Your task to perform on an android device: install app "Nova Launcher" Image 0: 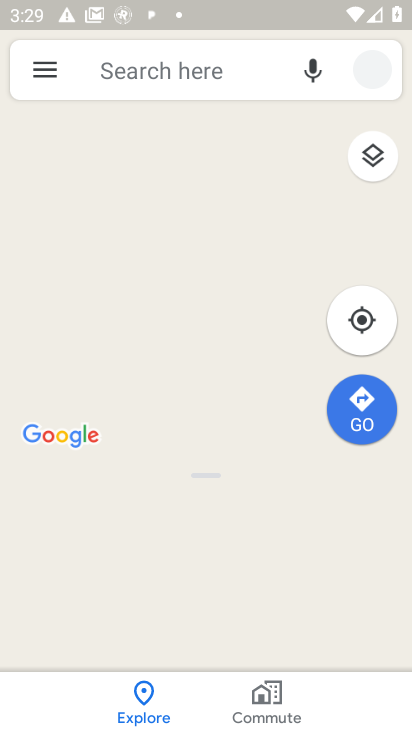
Step 0: press home button
Your task to perform on an android device: install app "Nova Launcher" Image 1: 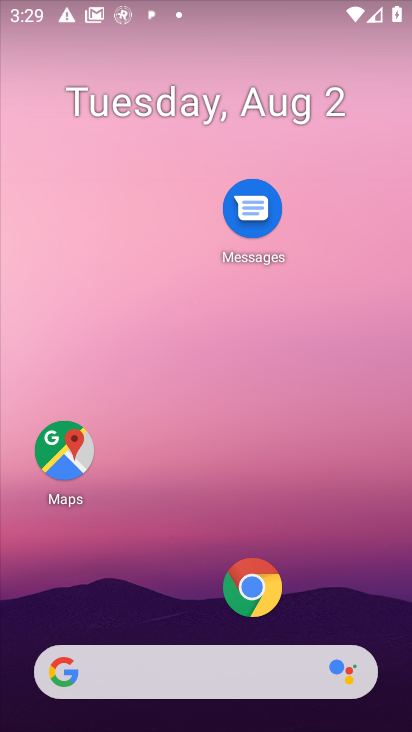
Step 1: drag from (188, 570) to (157, 272)
Your task to perform on an android device: install app "Nova Launcher" Image 2: 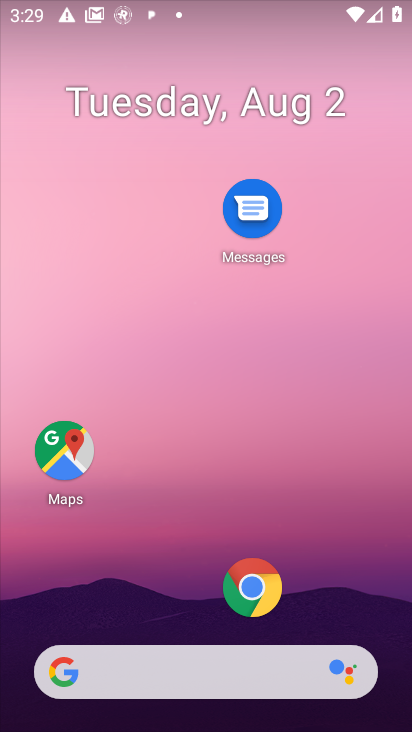
Step 2: drag from (174, 578) to (202, 249)
Your task to perform on an android device: install app "Nova Launcher" Image 3: 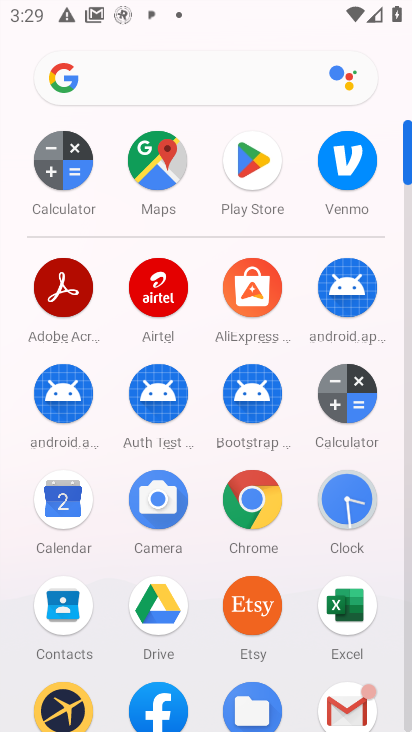
Step 3: click (230, 178)
Your task to perform on an android device: install app "Nova Launcher" Image 4: 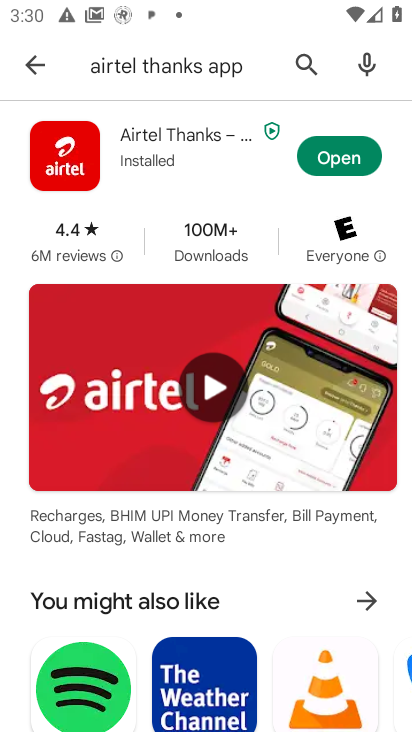
Step 4: click (298, 68)
Your task to perform on an android device: install app "Nova Launcher" Image 5: 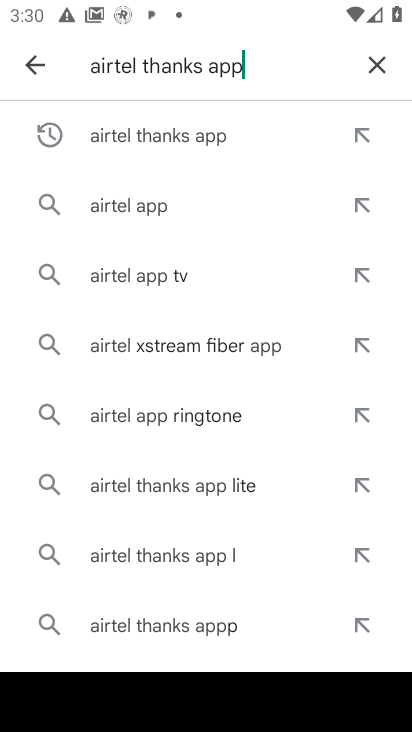
Step 5: click (379, 59)
Your task to perform on an android device: install app "Nova Launcher" Image 6: 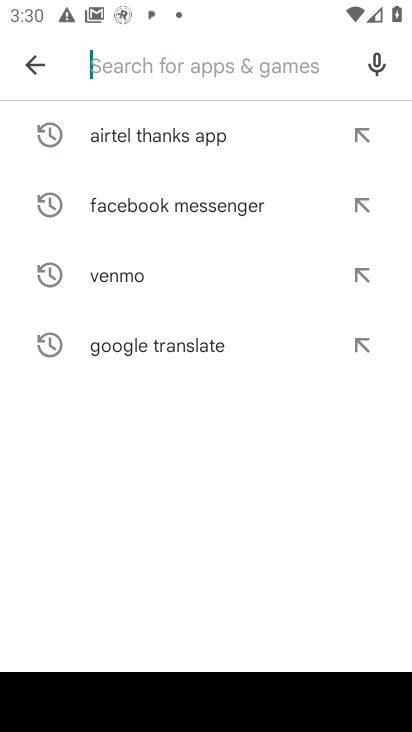
Step 6: type "Nova Launcher"
Your task to perform on an android device: install app "Nova Launcher" Image 7: 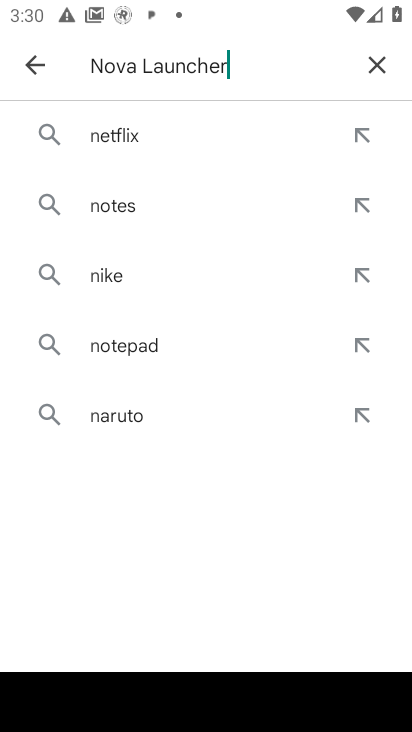
Step 7: type ""
Your task to perform on an android device: install app "Nova Launcher" Image 8: 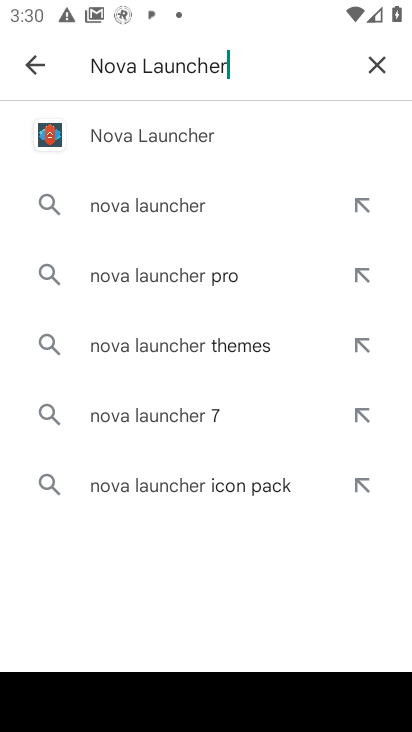
Step 8: click (202, 144)
Your task to perform on an android device: install app "Nova Launcher" Image 9: 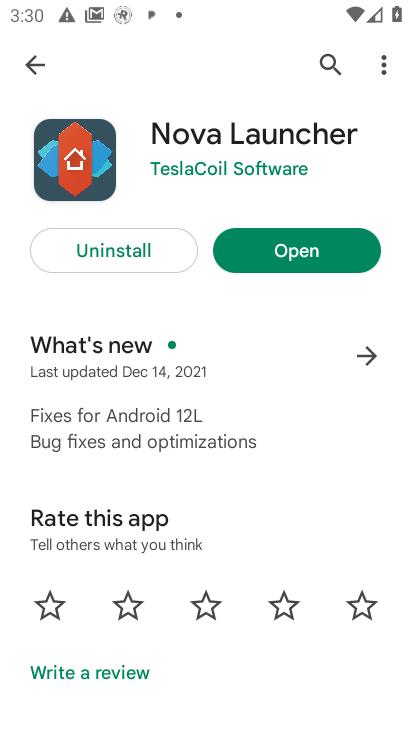
Step 9: task complete